Your task to perform on an android device: Is it going to rain today? Image 0: 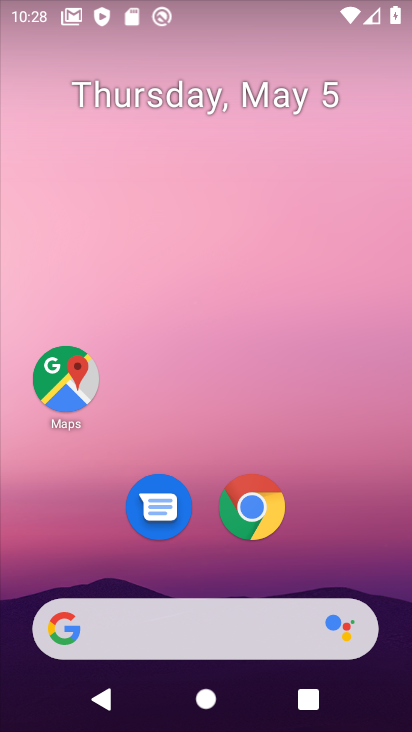
Step 0: click (120, 625)
Your task to perform on an android device: Is it going to rain today? Image 1: 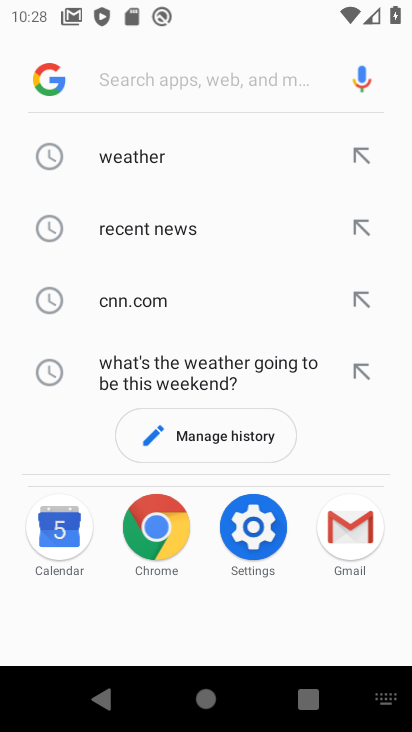
Step 1: click (135, 163)
Your task to perform on an android device: Is it going to rain today? Image 2: 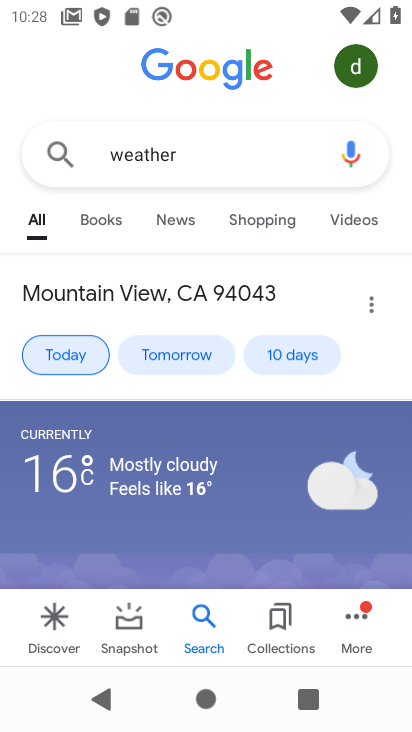
Step 2: task complete